Your task to perform on an android device: Go to internet settings Image 0: 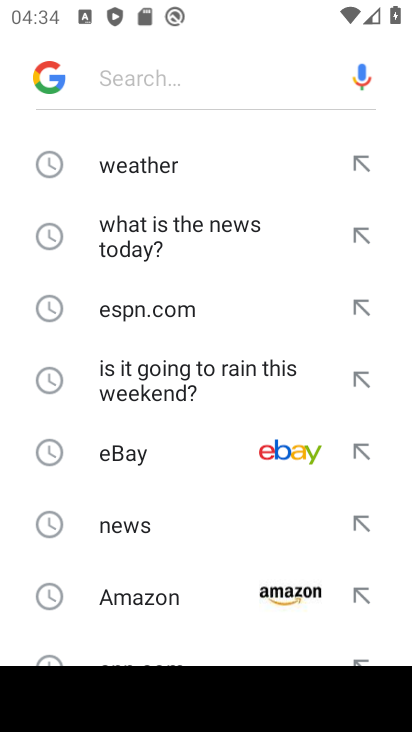
Step 0: press home button
Your task to perform on an android device: Go to internet settings Image 1: 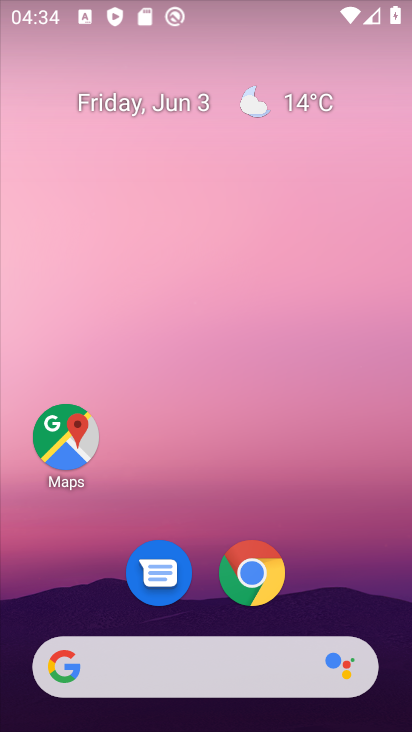
Step 1: drag from (285, 653) to (331, 1)
Your task to perform on an android device: Go to internet settings Image 2: 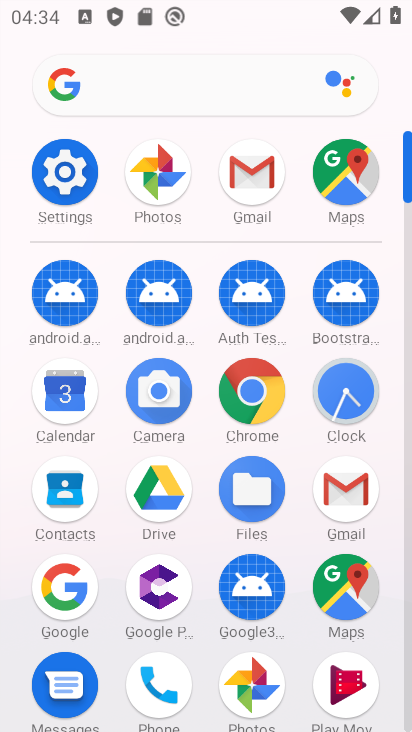
Step 2: click (49, 179)
Your task to perform on an android device: Go to internet settings Image 3: 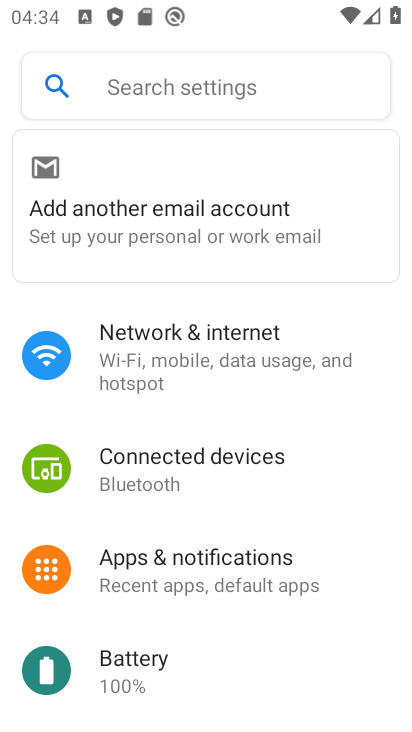
Step 3: click (206, 588)
Your task to perform on an android device: Go to internet settings Image 4: 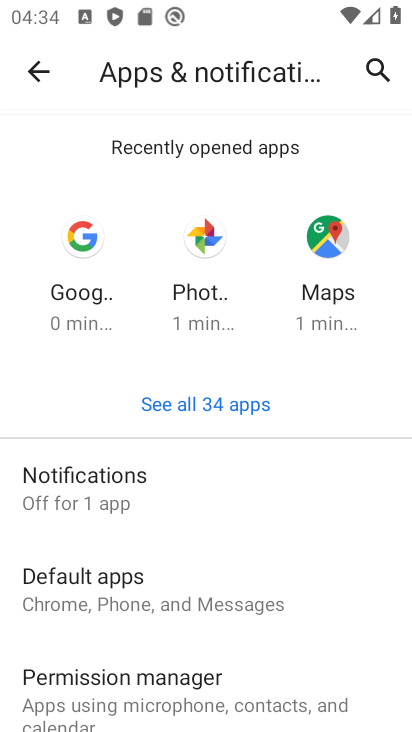
Step 4: press back button
Your task to perform on an android device: Go to internet settings Image 5: 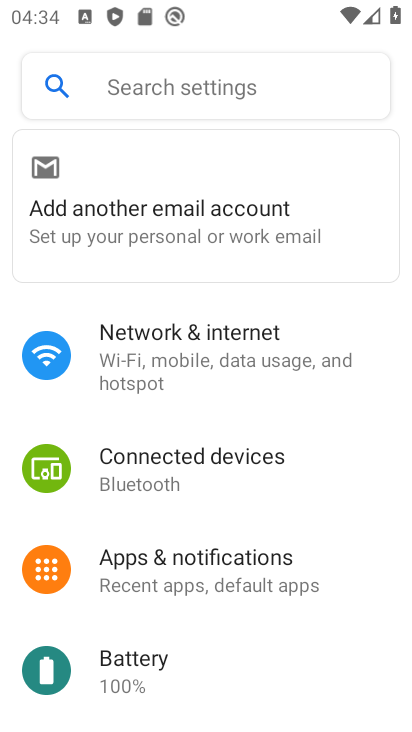
Step 5: drag from (261, 243) to (233, 688)
Your task to perform on an android device: Go to internet settings Image 6: 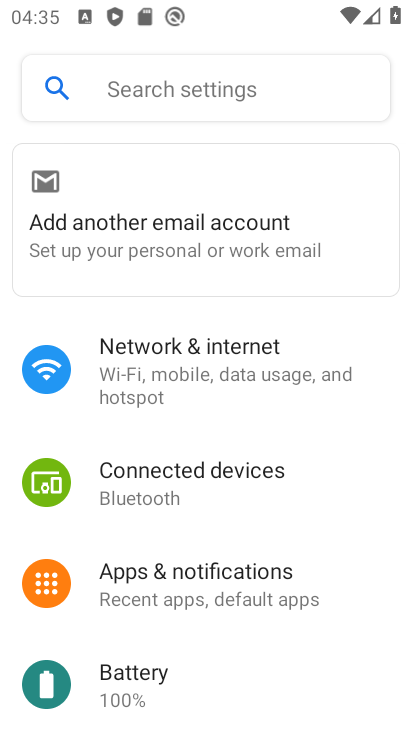
Step 6: click (236, 395)
Your task to perform on an android device: Go to internet settings Image 7: 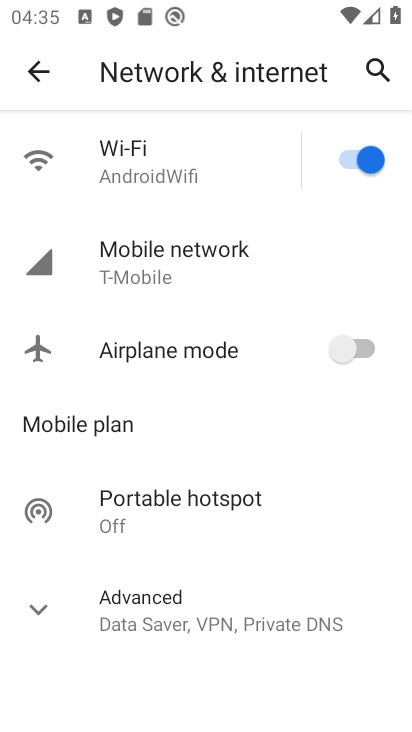
Step 7: task complete